Your task to perform on an android device: change timer sound Image 0: 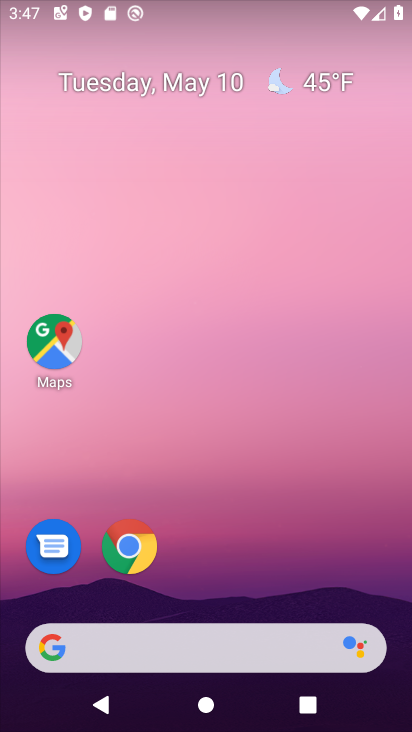
Step 0: drag from (165, 612) to (258, 82)
Your task to perform on an android device: change timer sound Image 1: 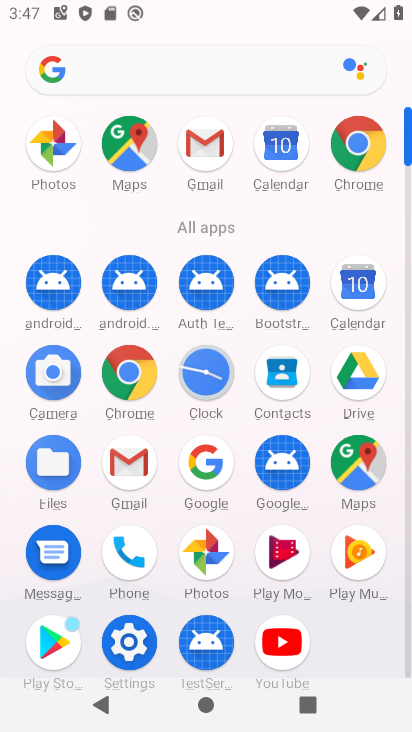
Step 1: click (209, 380)
Your task to perform on an android device: change timer sound Image 2: 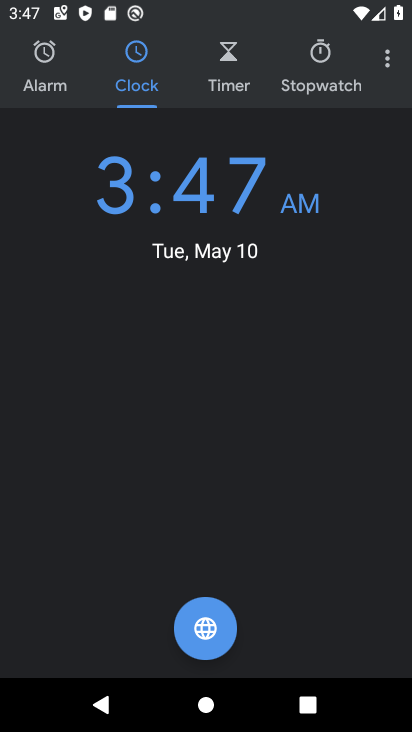
Step 2: click (379, 51)
Your task to perform on an android device: change timer sound Image 3: 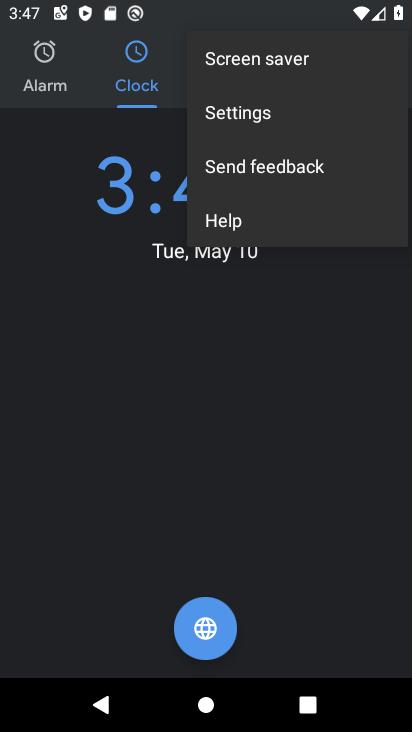
Step 3: click (295, 123)
Your task to perform on an android device: change timer sound Image 4: 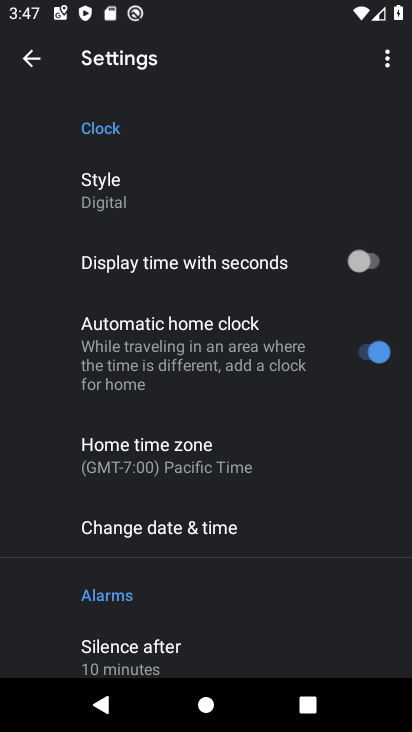
Step 4: drag from (173, 608) to (251, 188)
Your task to perform on an android device: change timer sound Image 5: 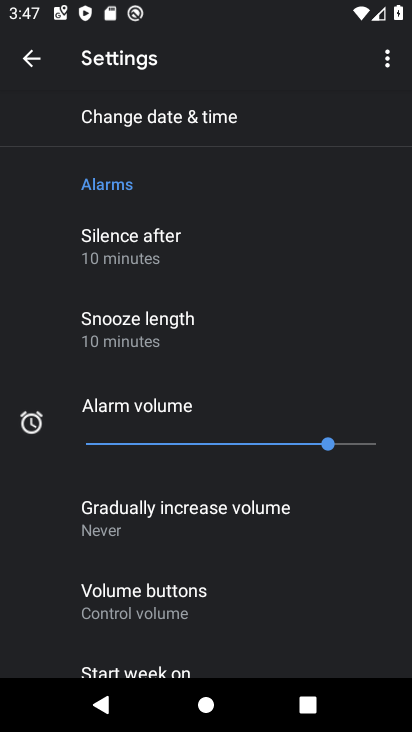
Step 5: drag from (159, 622) to (218, 358)
Your task to perform on an android device: change timer sound Image 6: 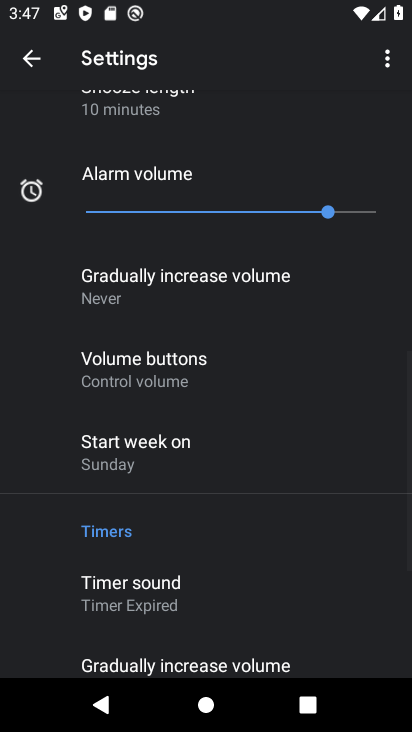
Step 6: click (137, 586)
Your task to perform on an android device: change timer sound Image 7: 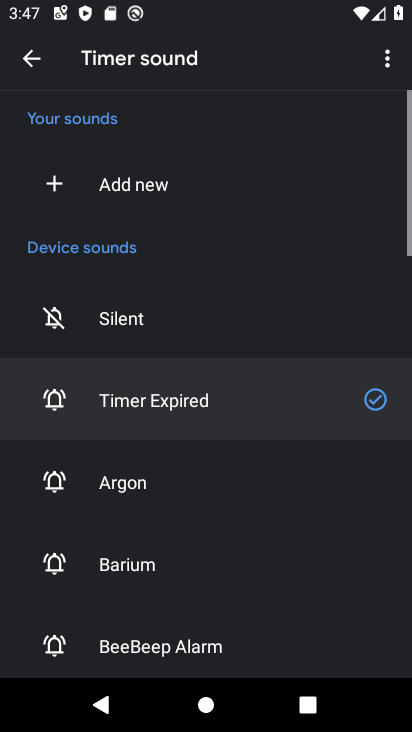
Step 7: click (145, 495)
Your task to perform on an android device: change timer sound Image 8: 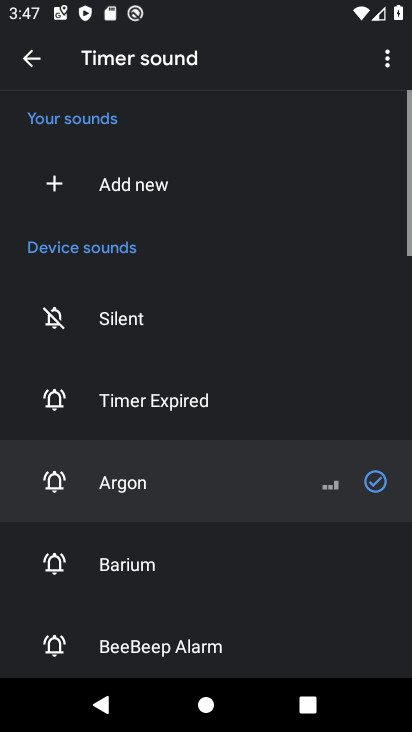
Step 8: task complete